Your task to perform on an android device: Is it going to rain today? Image 0: 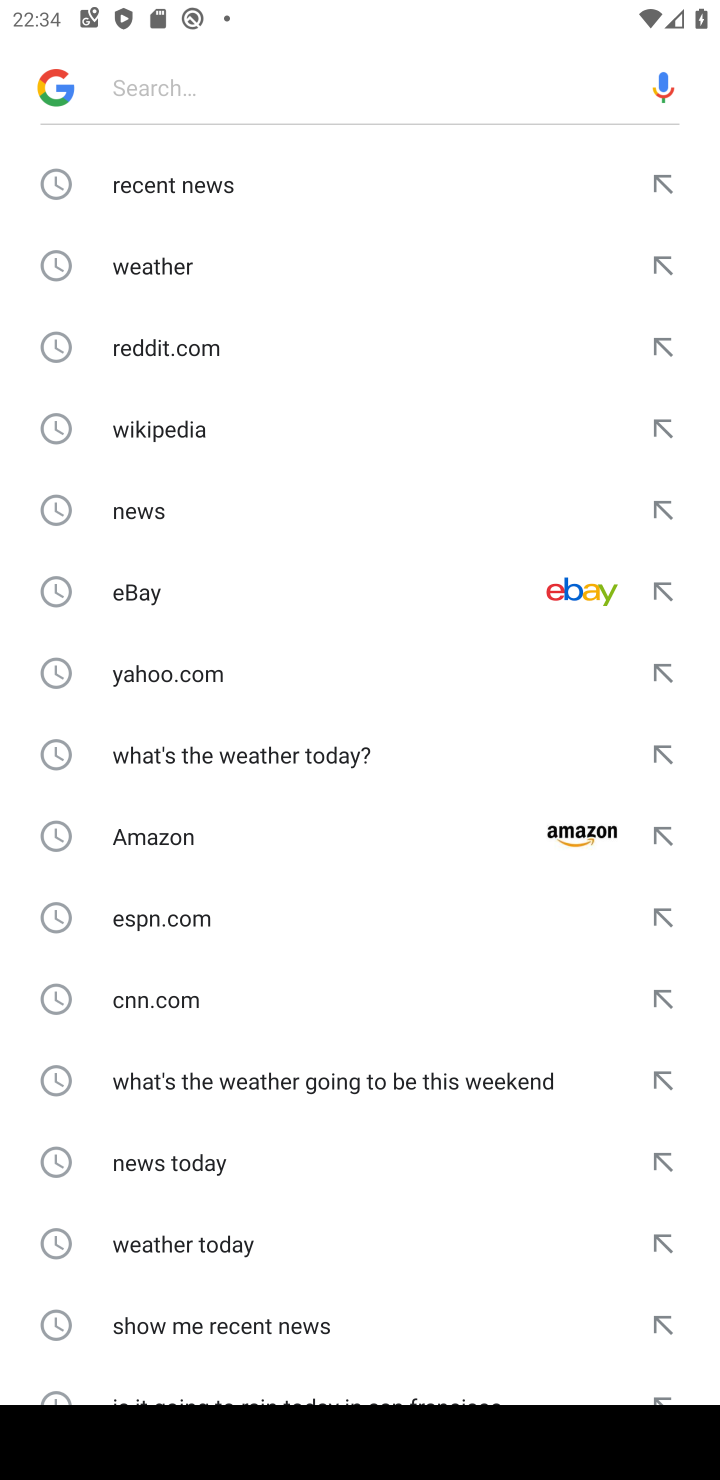
Step 0: click (165, 252)
Your task to perform on an android device: Is it going to rain today? Image 1: 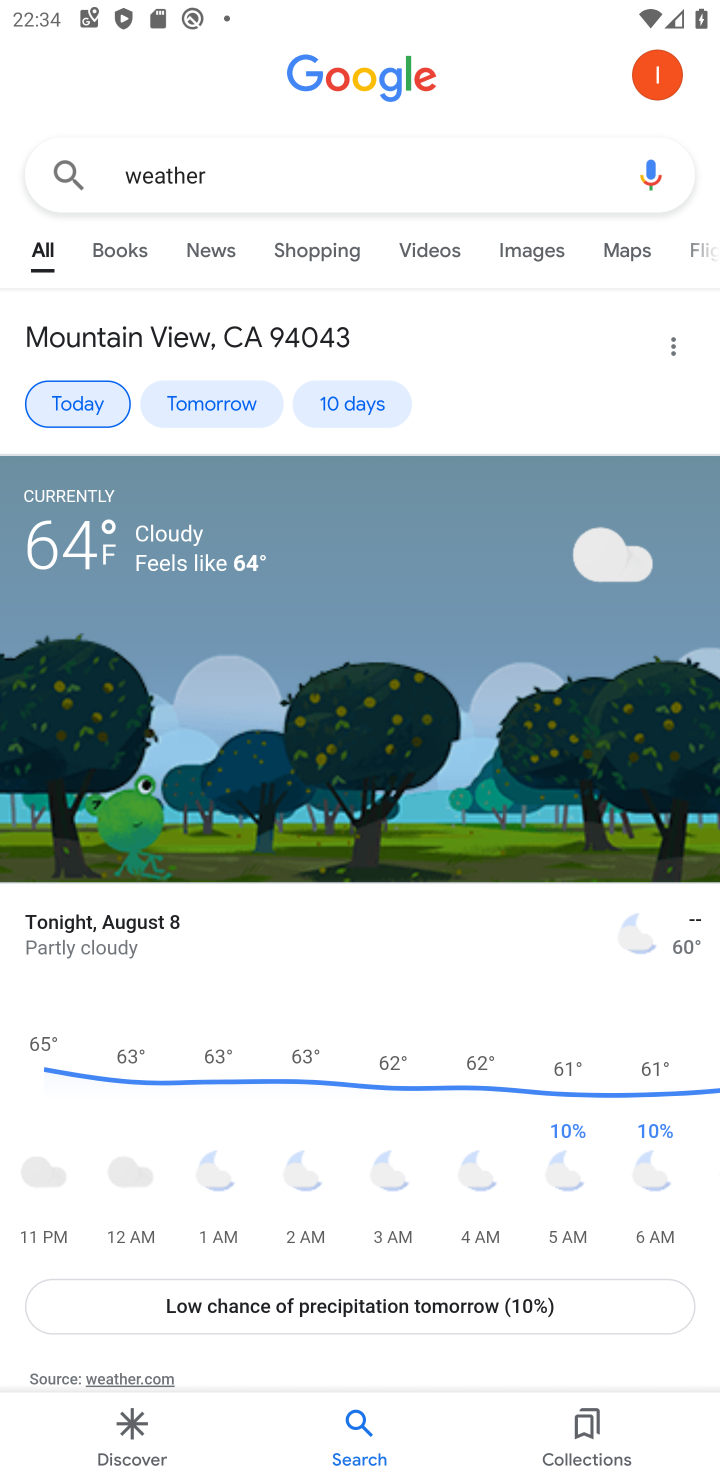
Step 1: task complete